Your task to perform on an android device: toggle improve location accuracy Image 0: 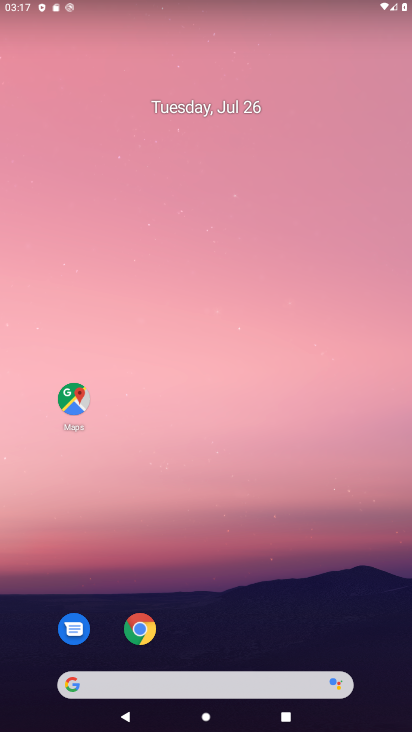
Step 0: drag from (244, 602) to (317, 129)
Your task to perform on an android device: toggle improve location accuracy Image 1: 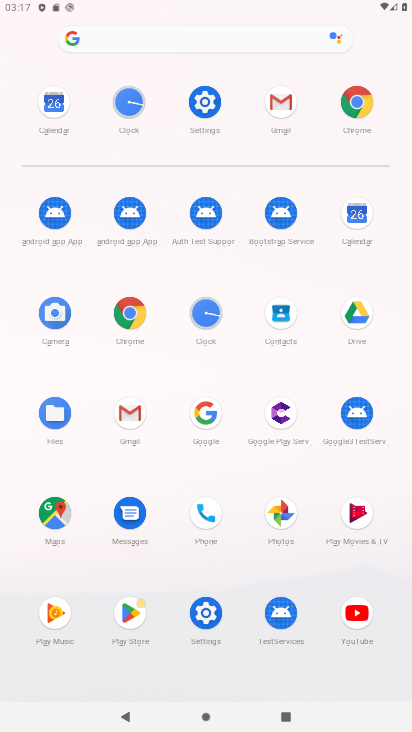
Step 1: click (210, 615)
Your task to perform on an android device: toggle improve location accuracy Image 2: 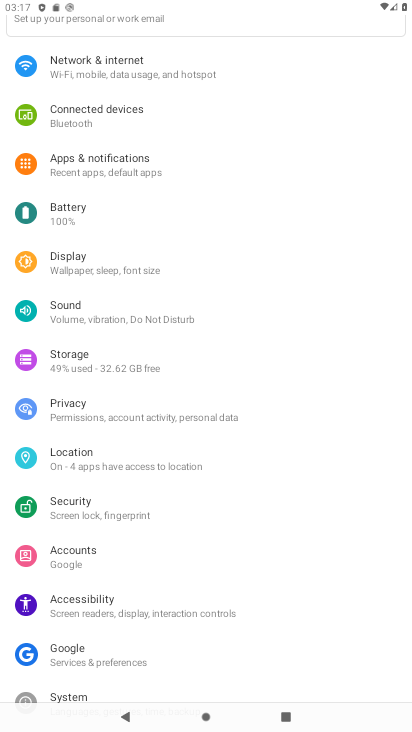
Step 2: click (141, 463)
Your task to perform on an android device: toggle improve location accuracy Image 3: 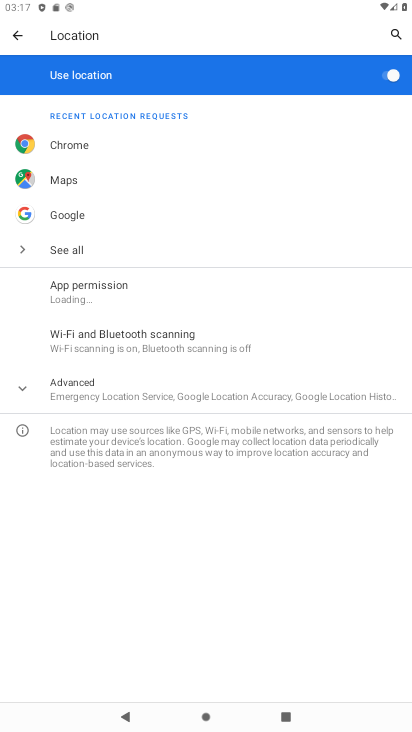
Step 3: click (164, 394)
Your task to perform on an android device: toggle improve location accuracy Image 4: 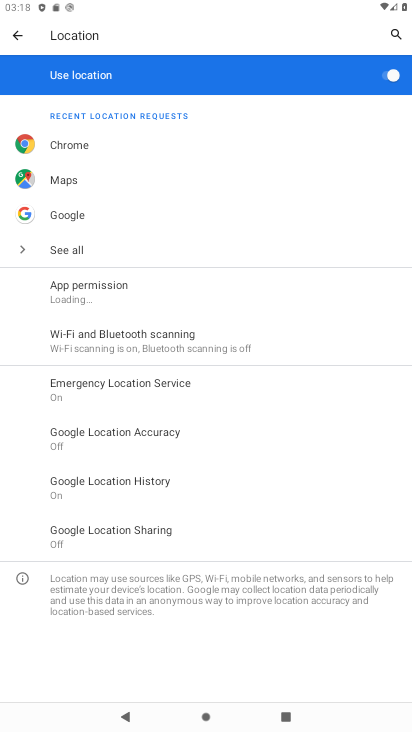
Step 4: click (153, 425)
Your task to perform on an android device: toggle improve location accuracy Image 5: 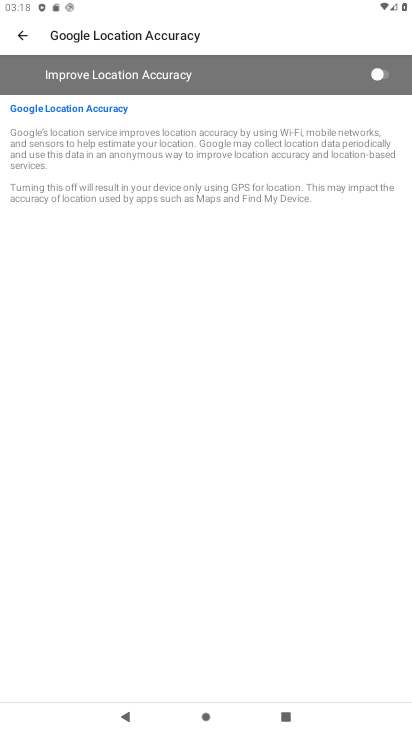
Step 5: click (219, 60)
Your task to perform on an android device: toggle improve location accuracy Image 6: 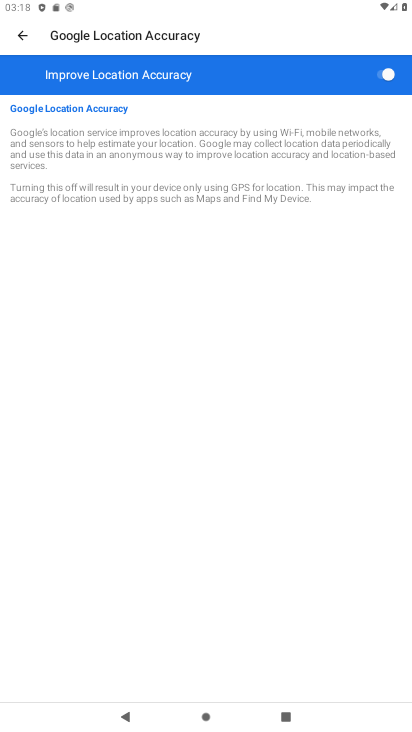
Step 6: task complete